Your task to perform on an android device: turn pop-ups on in chrome Image 0: 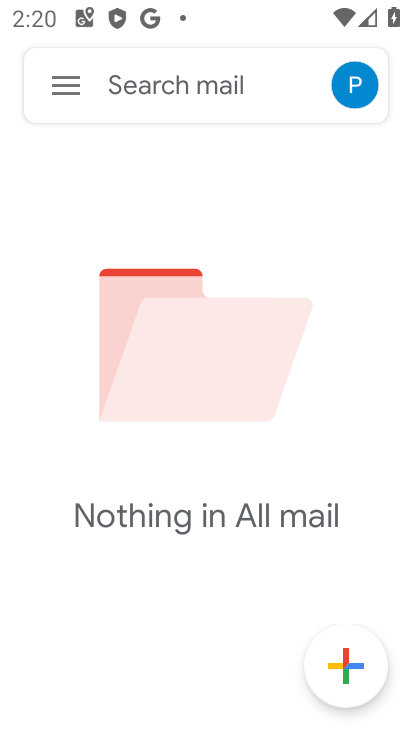
Step 0: press back button
Your task to perform on an android device: turn pop-ups on in chrome Image 1: 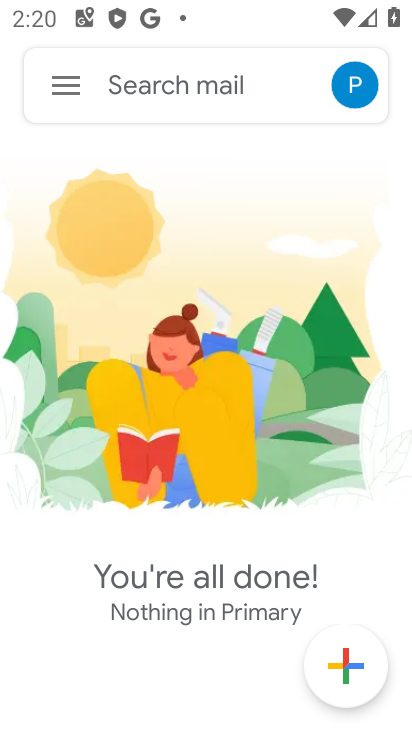
Step 1: press back button
Your task to perform on an android device: turn pop-ups on in chrome Image 2: 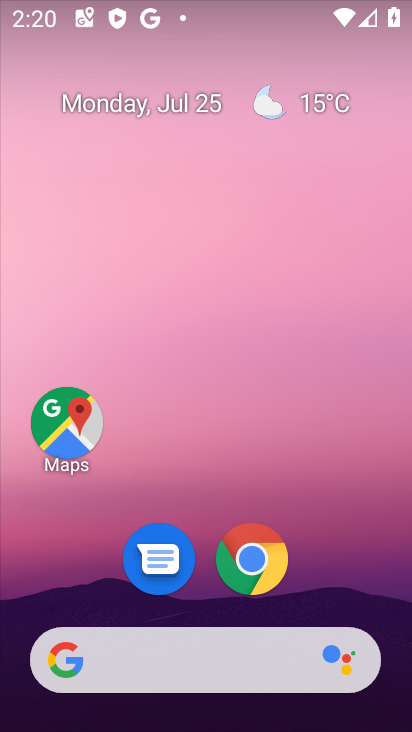
Step 2: click (254, 548)
Your task to perform on an android device: turn pop-ups on in chrome Image 3: 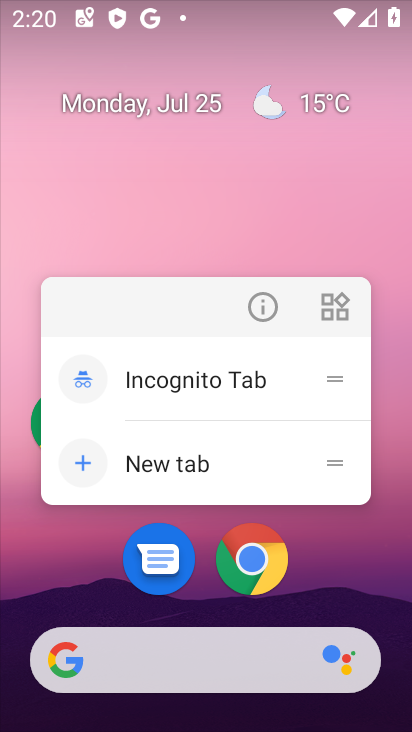
Step 3: click (254, 548)
Your task to perform on an android device: turn pop-ups on in chrome Image 4: 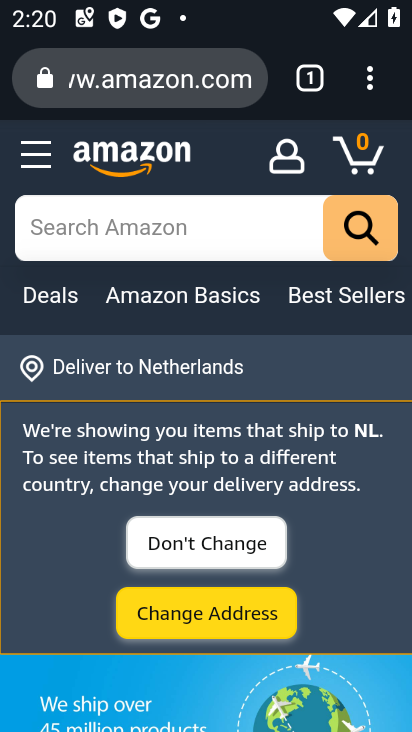
Step 4: drag from (375, 78) to (155, 609)
Your task to perform on an android device: turn pop-ups on in chrome Image 5: 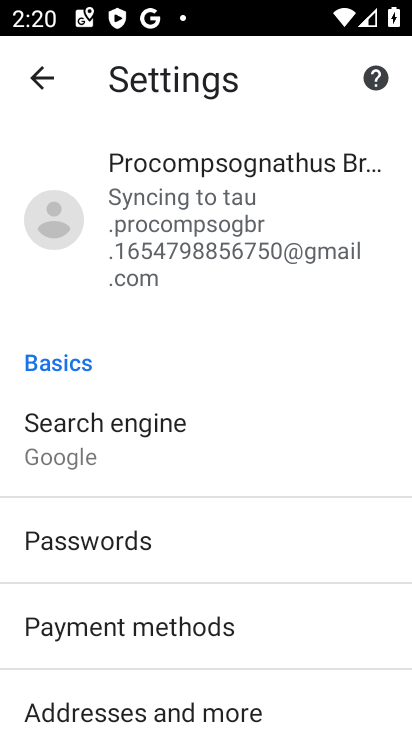
Step 5: drag from (141, 681) to (222, 98)
Your task to perform on an android device: turn pop-ups on in chrome Image 6: 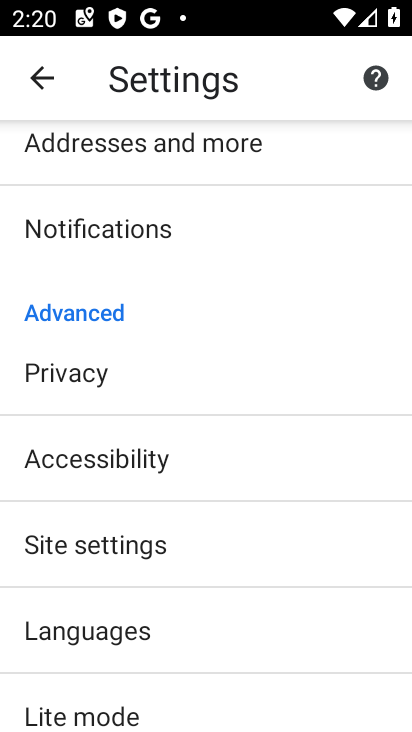
Step 6: click (106, 546)
Your task to perform on an android device: turn pop-ups on in chrome Image 7: 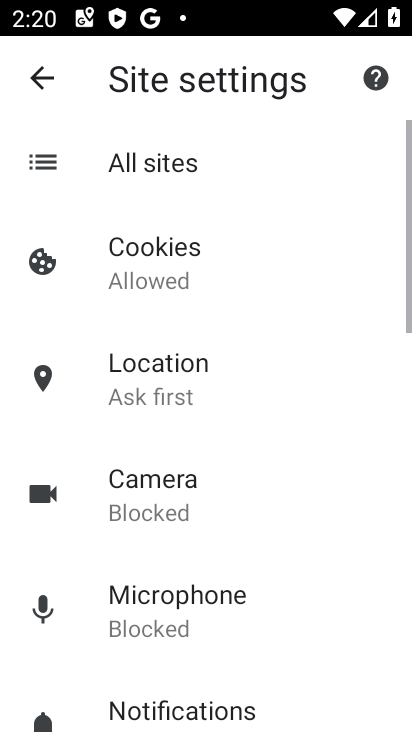
Step 7: drag from (199, 603) to (312, 26)
Your task to perform on an android device: turn pop-ups on in chrome Image 8: 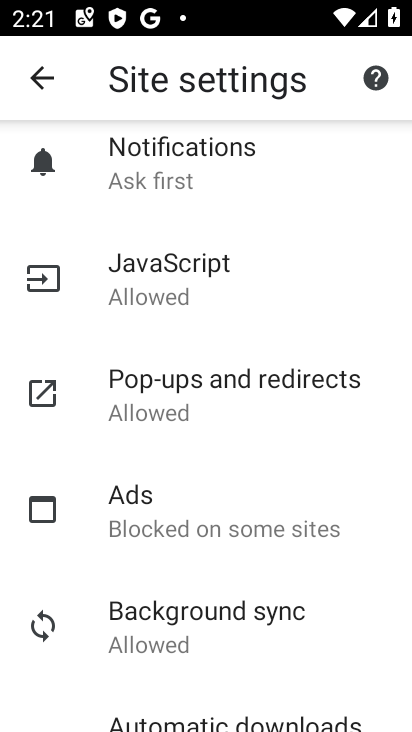
Step 8: click (167, 416)
Your task to perform on an android device: turn pop-ups on in chrome Image 9: 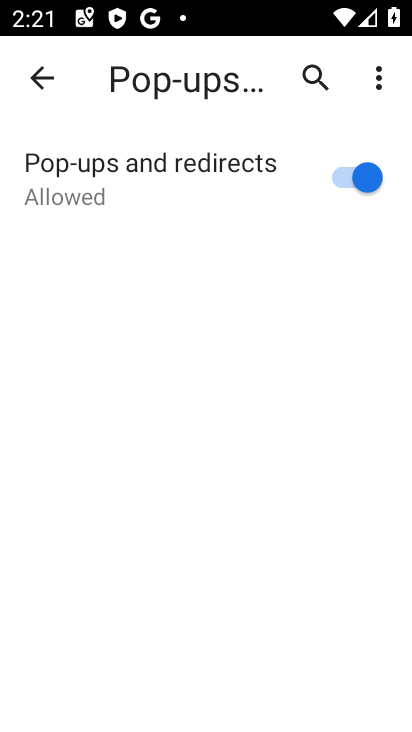
Step 9: task complete